Your task to perform on an android device: Do I have any events today? Image 0: 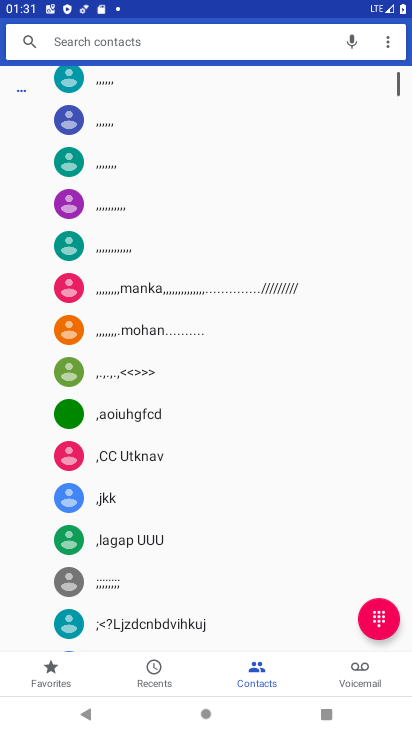
Step 0: press home button
Your task to perform on an android device: Do I have any events today? Image 1: 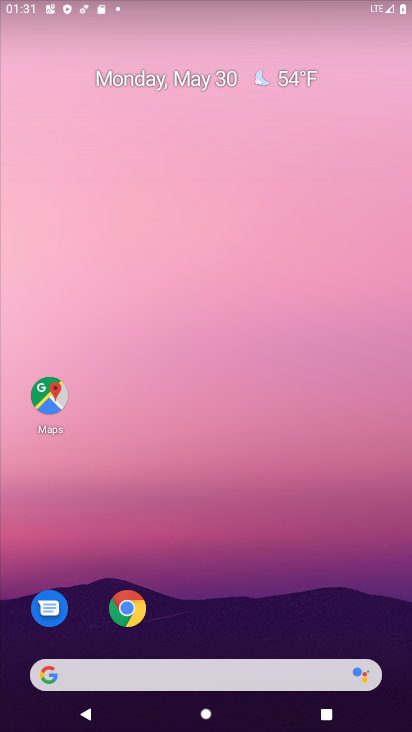
Step 1: drag from (246, 551) to (245, 199)
Your task to perform on an android device: Do I have any events today? Image 2: 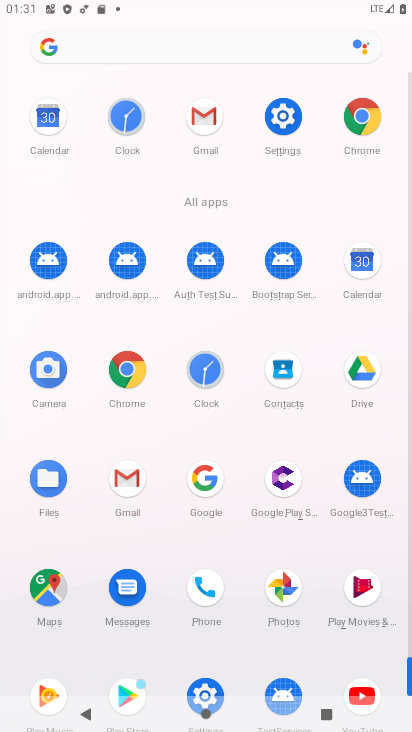
Step 2: click (367, 257)
Your task to perform on an android device: Do I have any events today? Image 3: 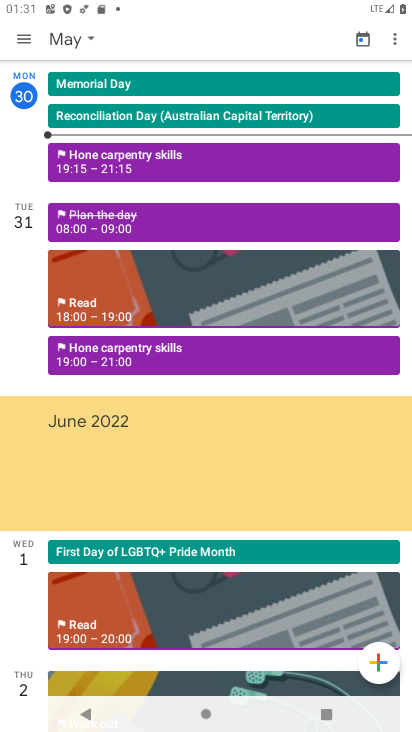
Step 3: click (26, 93)
Your task to perform on an android device: Do I have any events today? Image 4: 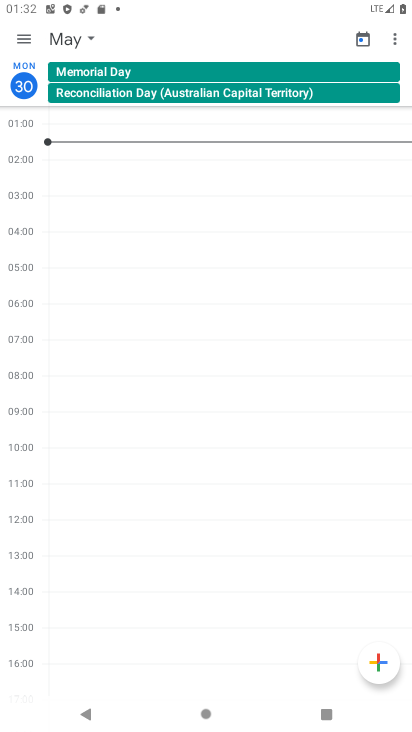
Step 4: task complete